Your task to perform on an android device: turn on wifi Image 0: 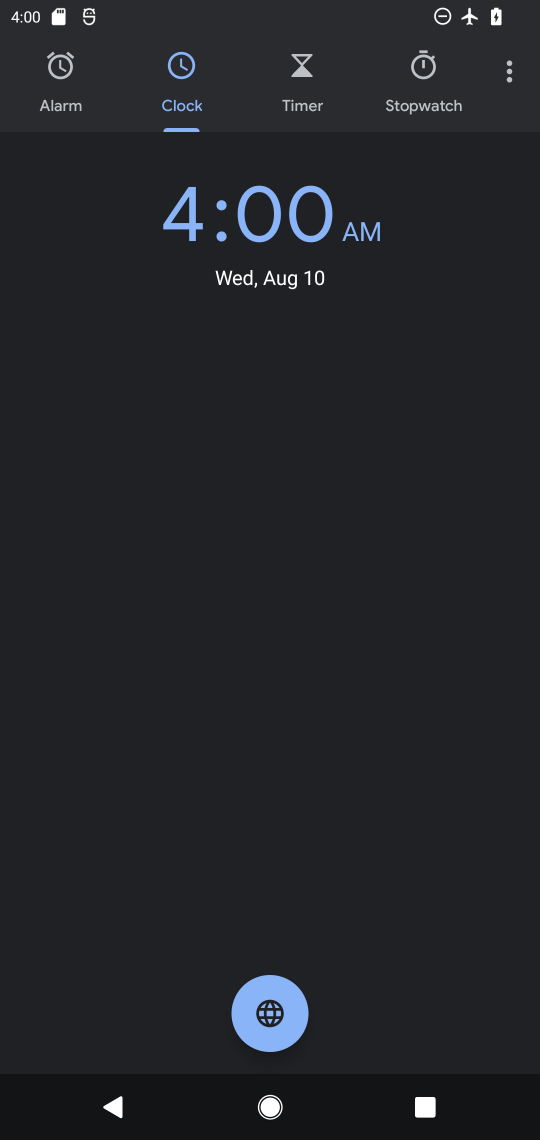
Step 0: press home button
Your task to perform on an android device: turn on wifi Image 1: 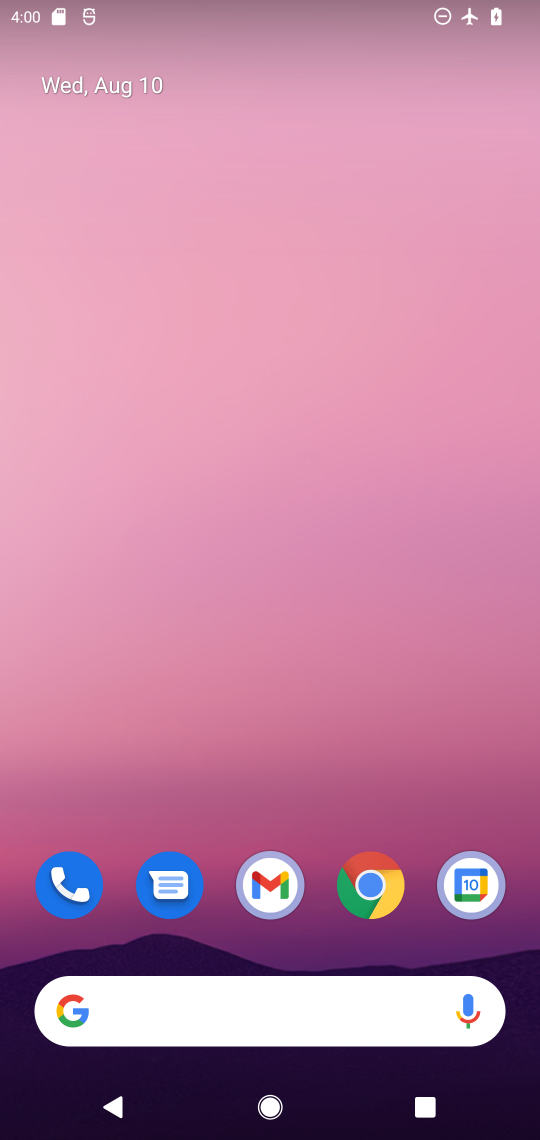
Step 1: drag from (312, 940) to (303, 182)
Your task to perform on an android device: turn on wifi Image 2: 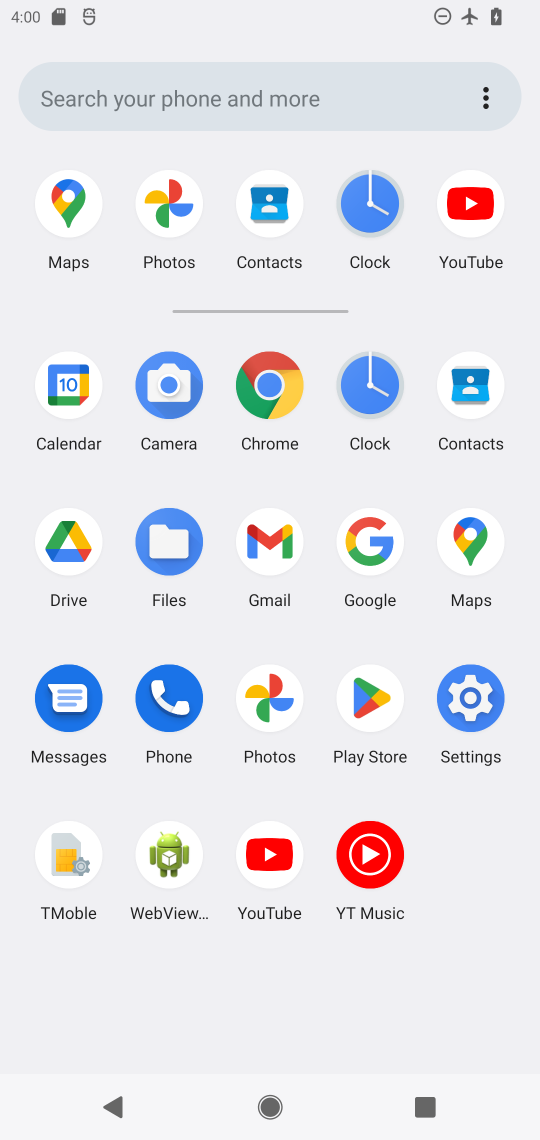
Step 2: click (468, 702)
Your task to perform on an android device: turn on wifi Image 3: 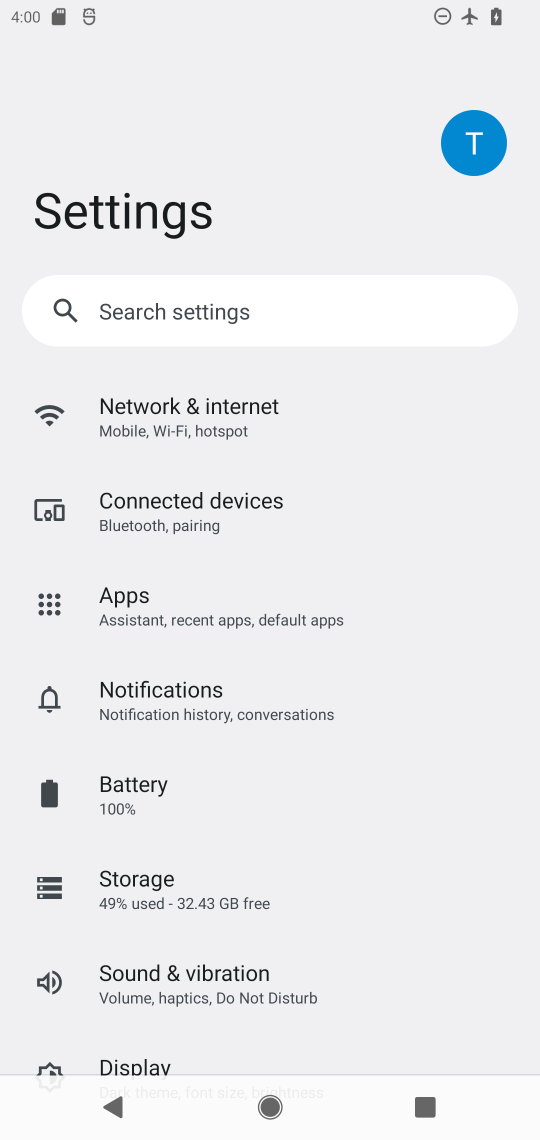
Step 3: click (182, 401)
Your task to perform on an android device: turn on wifi Image 4: 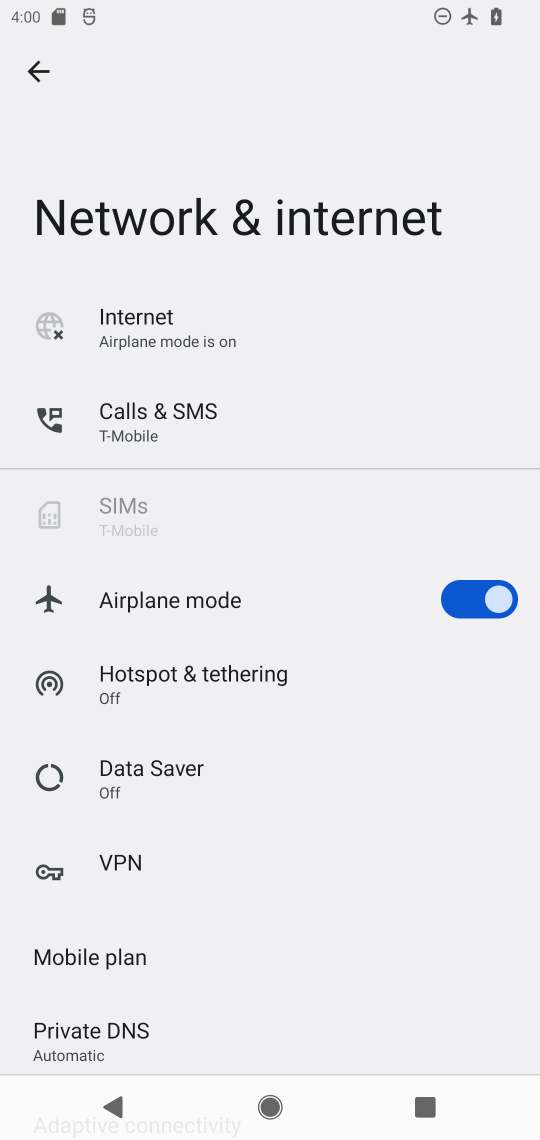
Step 4: click (138, 311)
Your task to perform on an android device: turn on wifi Image 5: 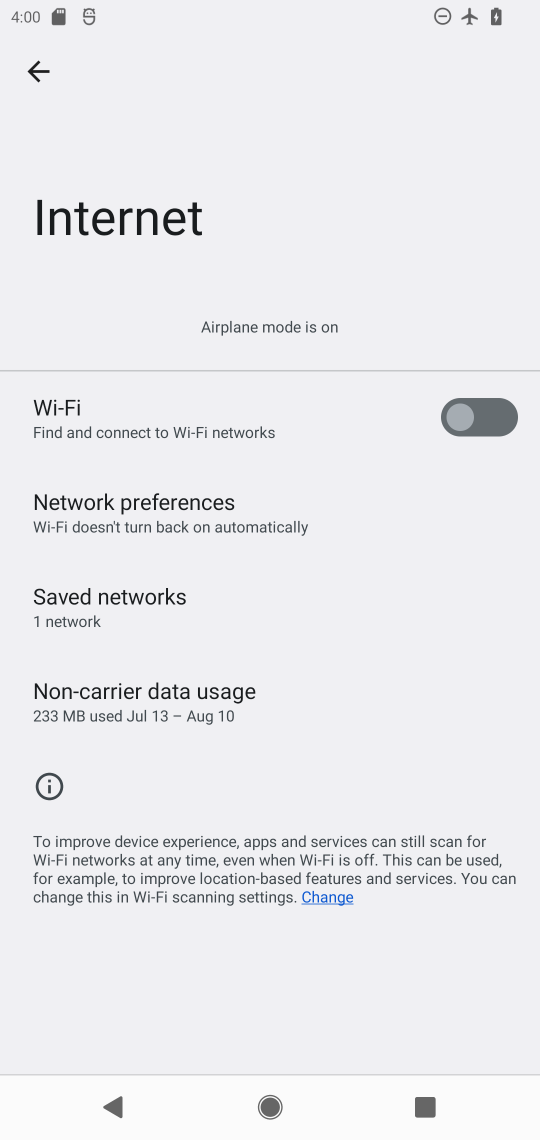
Step 5: click (478, 417)
Your task to perform on an android device: turn on wifi Image 6: 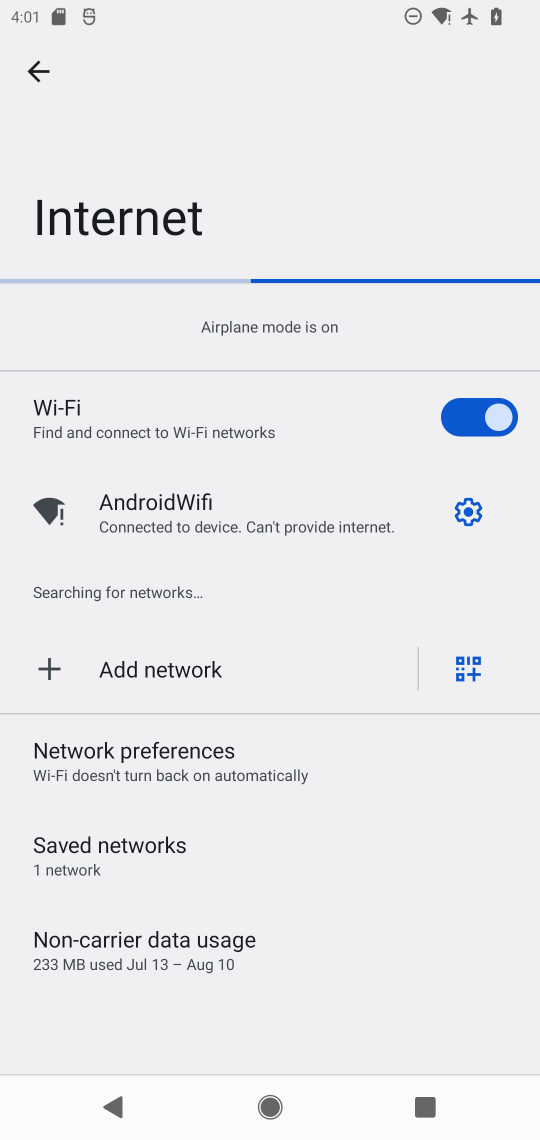
Step 6: task complete